Your task to perform on an android device: uninstall "PlayWell" Image 0: 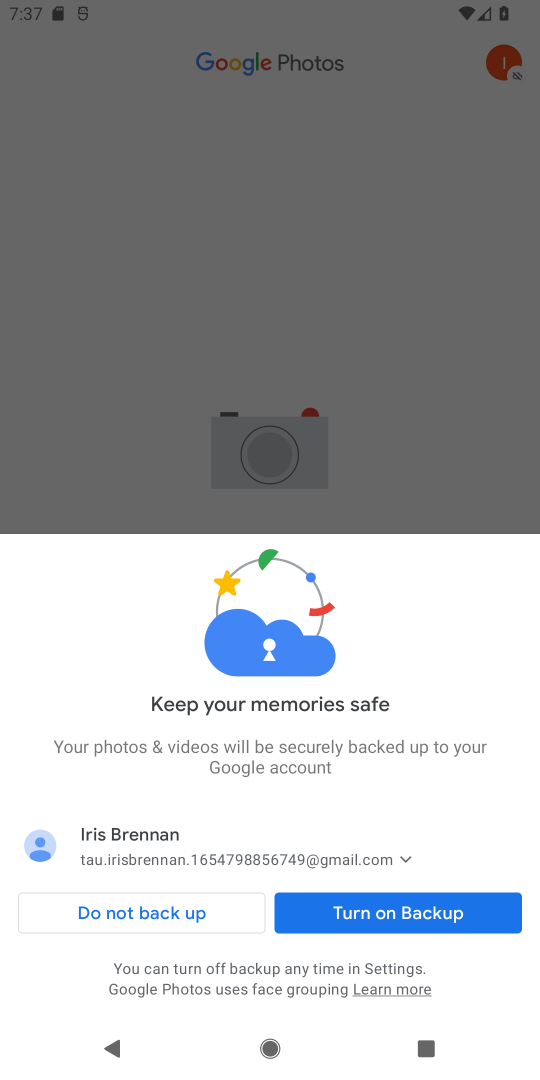
Step 0: press home button
Your task to perform on an android device: uninstall "PlayWell" Image 1: 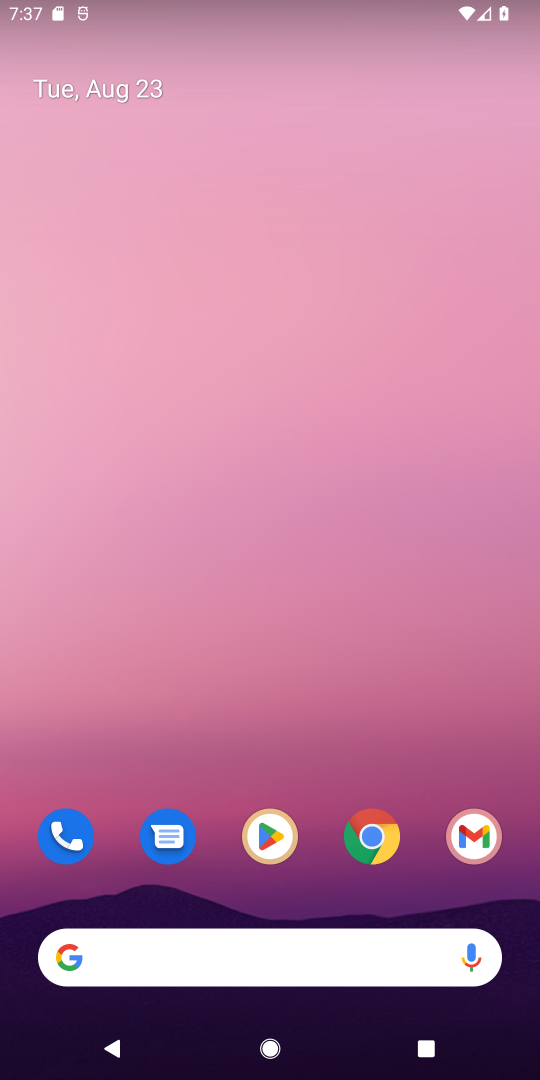
Step 1: click (278, 844)
Your task to perform on an android device: uninstall "PlayWell" Image 2: 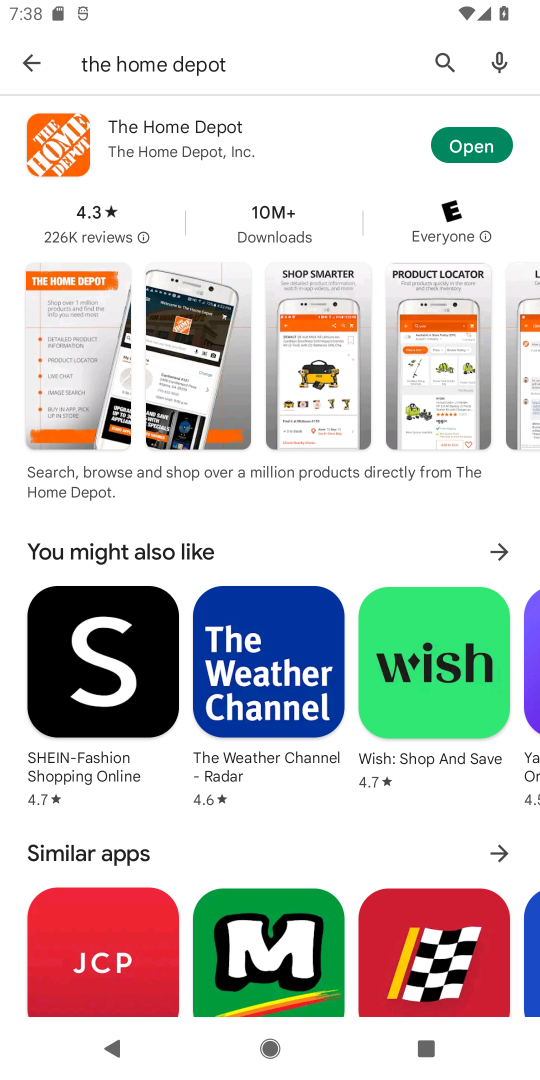
Step 2: click (445, 63)
Your task to perform on an android device: uninstall "PlayWell" Image 3: 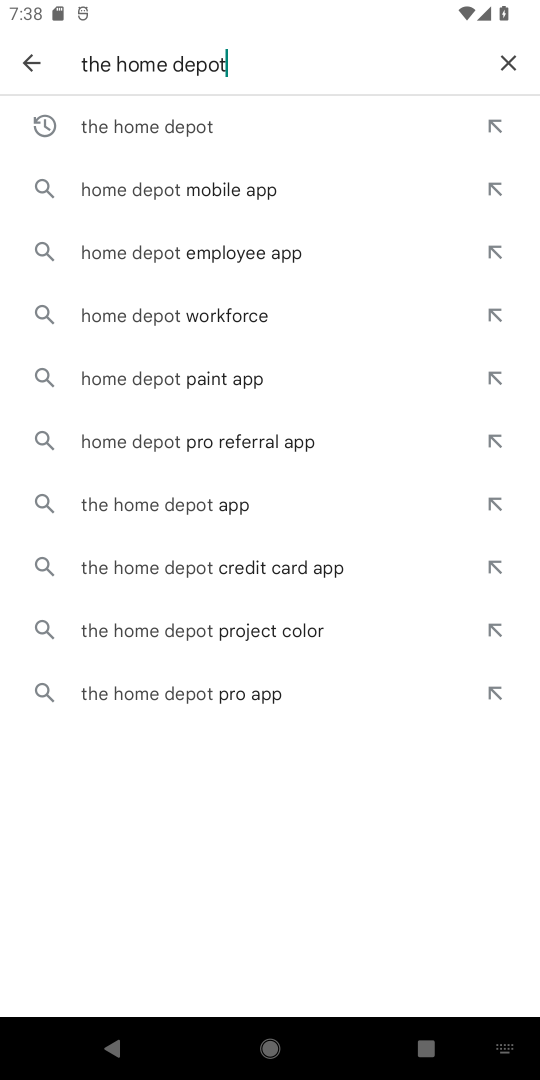
Step 3: click (512, 64)
Your task to perform on an android device: uninstall "PlayWell" Image 4: 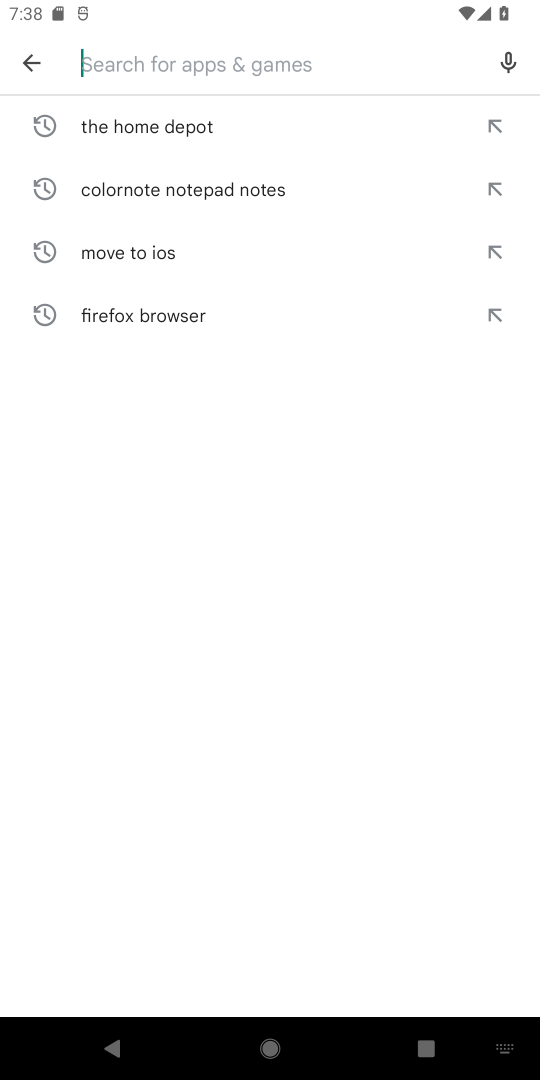
Step 4: type "PlayWell"
Your task to perform on an android device: uninstall "PlayWell" Image 5: 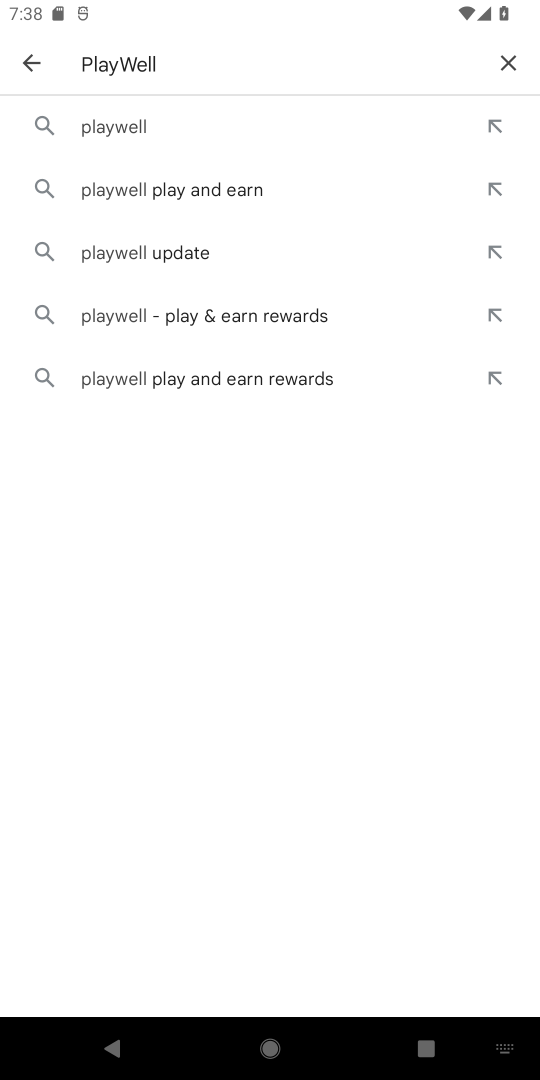
Step 5: click (107, 132)
Your task to perform on an android device: uninstall "PlayWell" Image 6: 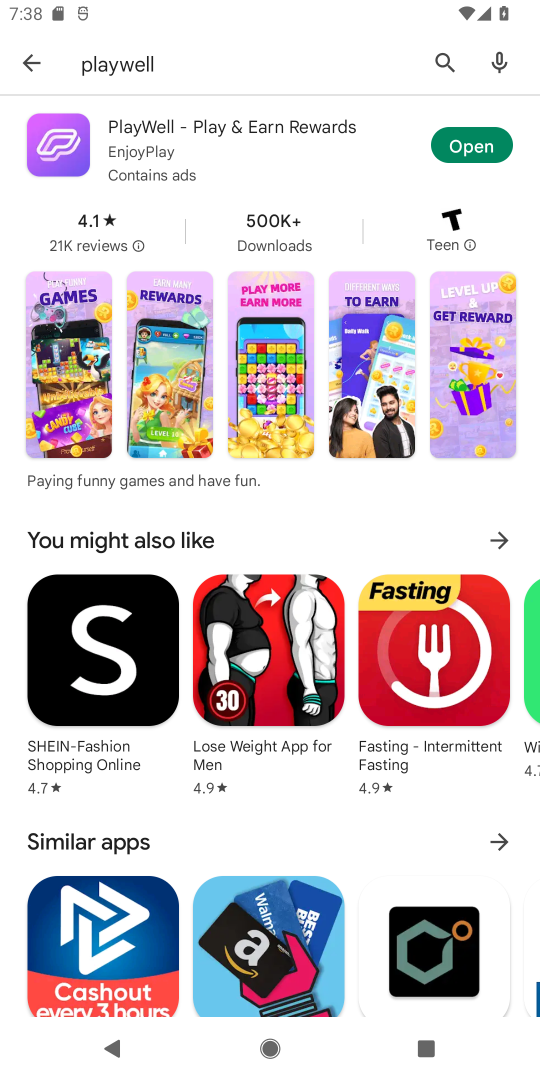
Step 6: click (128, 124)
Your task to perform on an android device: uninstall "PlayWell" Image 7: 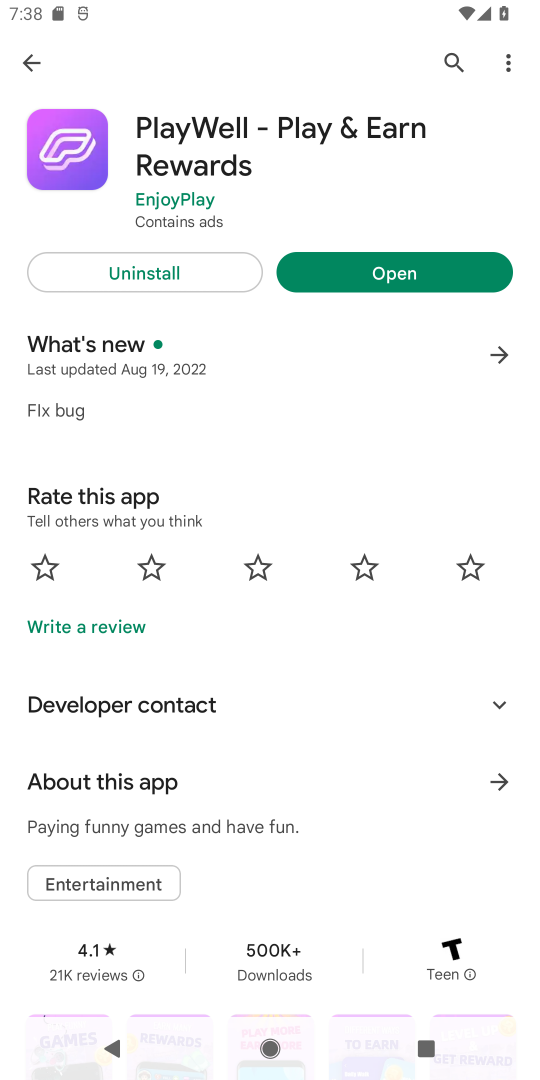
Step 7: click (132, 274)
Your task to perform on an android device: uninstall "PlayWell" Image 8: 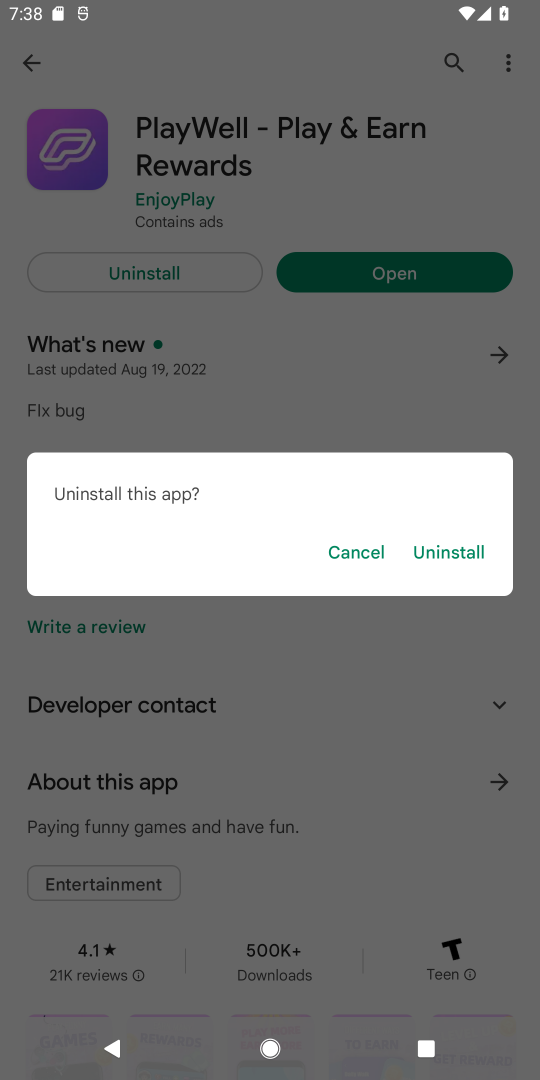
Step 8: click (448, 556)
Your task to perform on an android device: uninstall "PlayWell" Image 9: 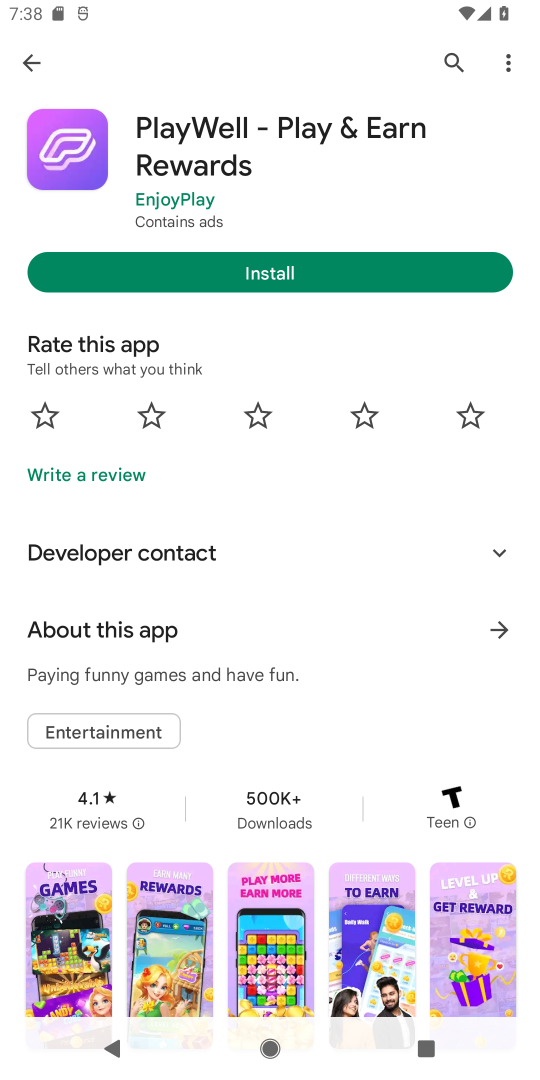
Step 9: task complete